Your task to perform on an android device: Open battery settings Image 0: 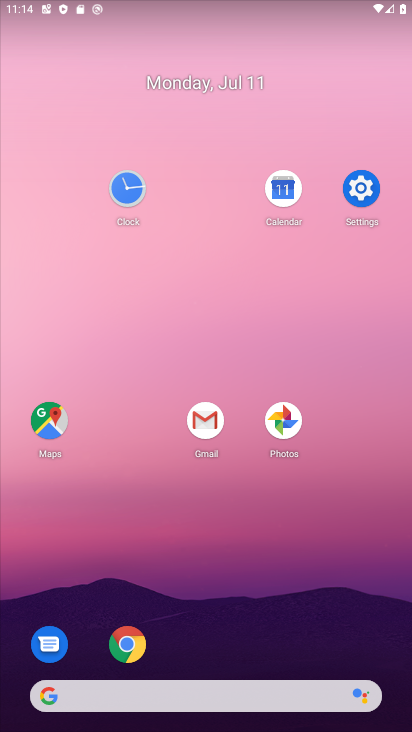
Step 0: click (357, 201)
Your task to perform on an android device: Open battery settings Image 1: 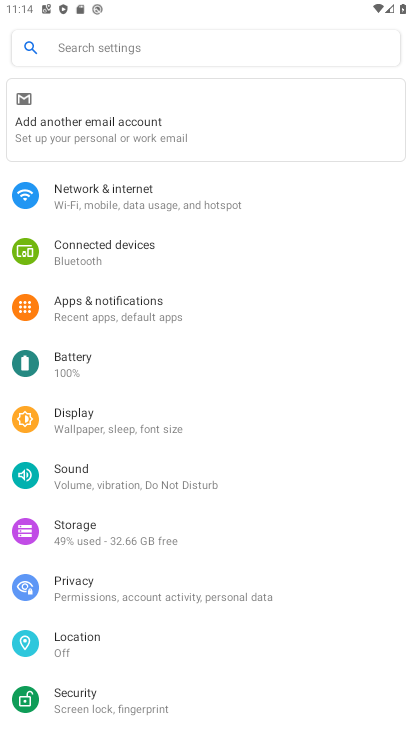
Step 1: click (64, 354)
Your task to perform on an android device: Open battery settings Image 2: 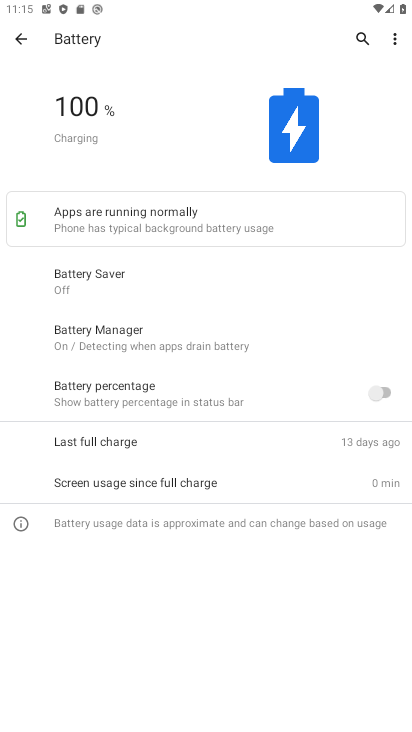
Step 2: task complete